Your task to perform on an android device: What time is it in Sydney? Image 0: 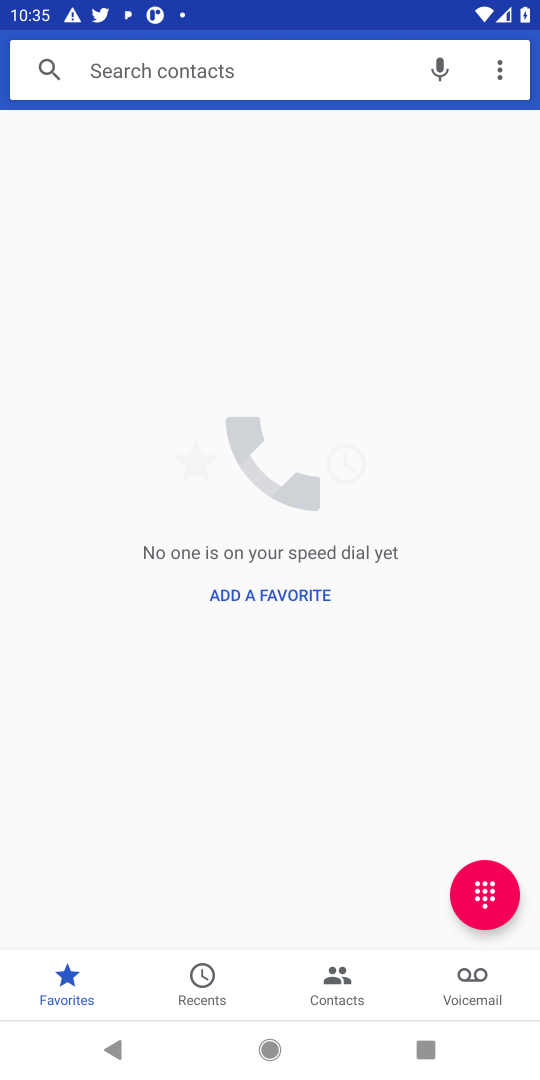
Step 0: press home button
Your task to perform on an android device: What time is it in Sydney? Image 1: 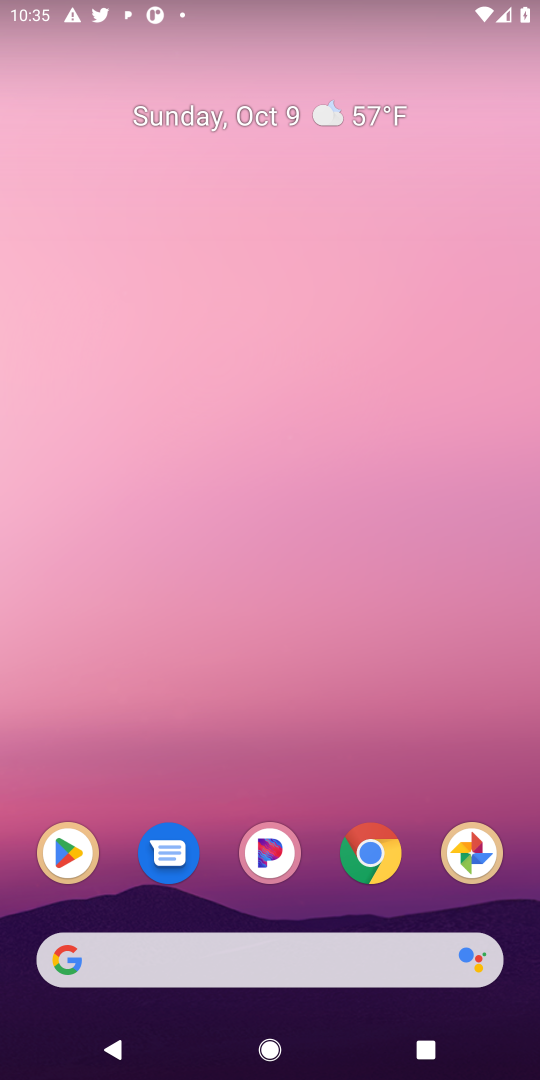
Step 1: click (370, 861)
Your task to perform on an android device: What time is it in Sydney? Image 2: 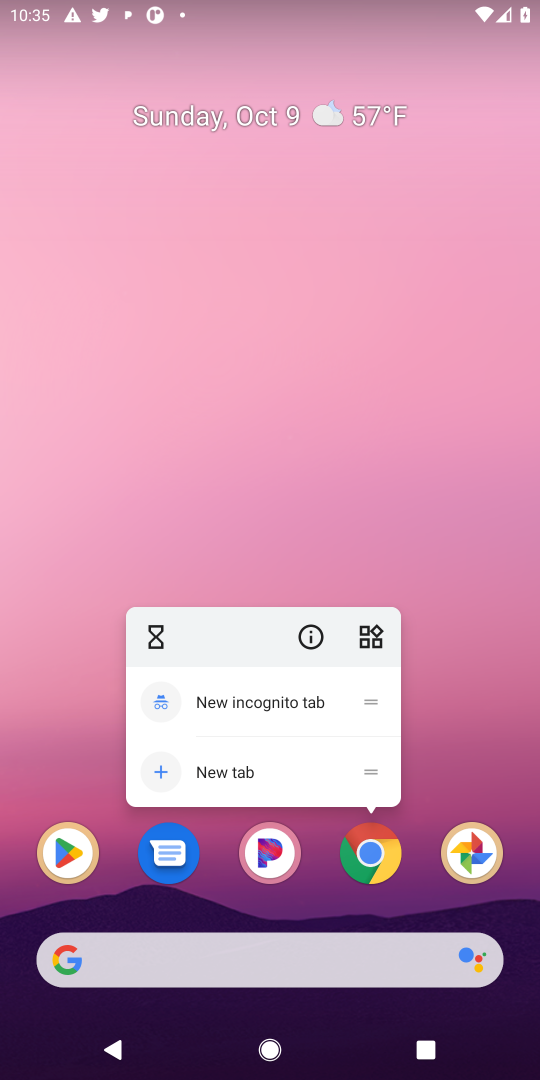
Step 2: click (370, 861)
Your task to perform on an android device: What time is it in Sydney? Image 3: 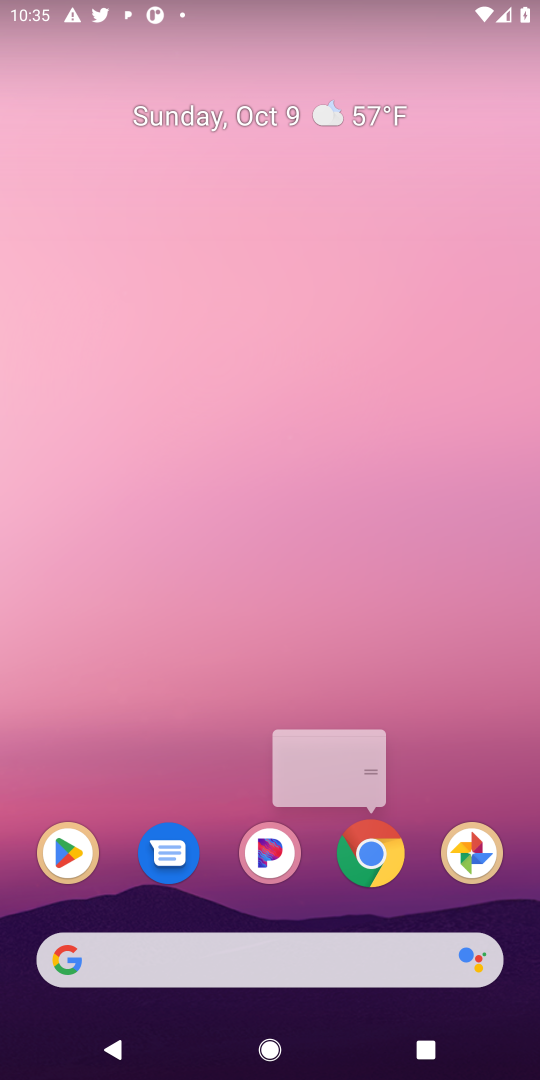
Step 3: click (352, 979)
Your task to perform on an android device: What time is it in Sydney? Image 4: 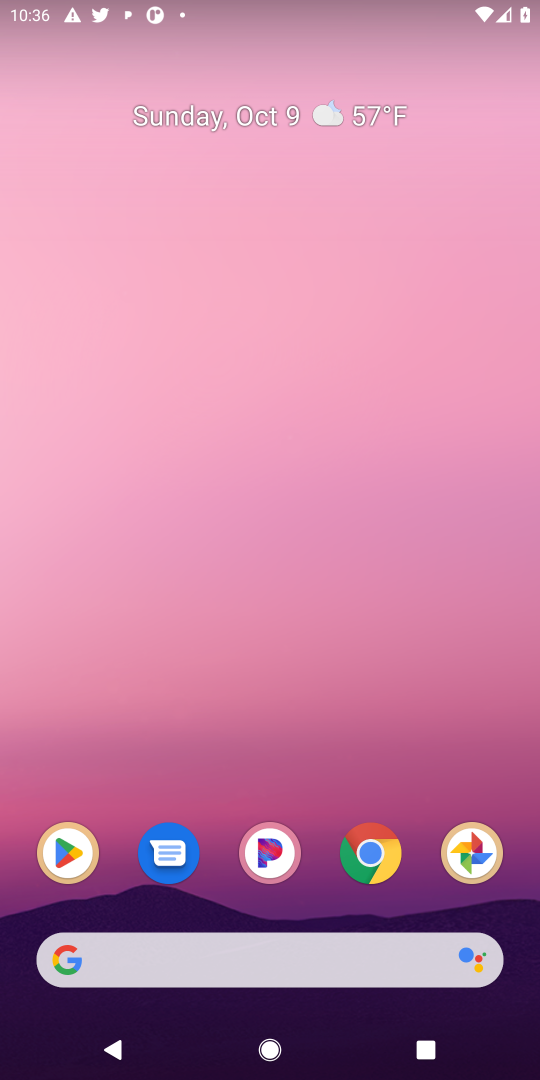
Step 4: click (268, 942)
Your task to perform on an android device: What time is it in Sydney? Image 5: 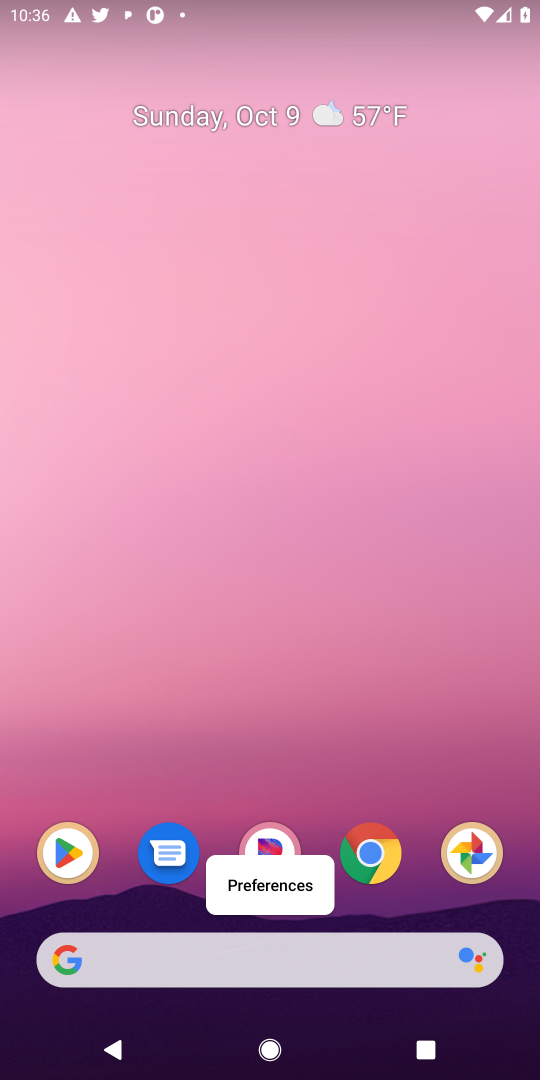
Step 5: click (221, 960)
Your task to perform on an android device: What time is it in Sydney? Image 6: 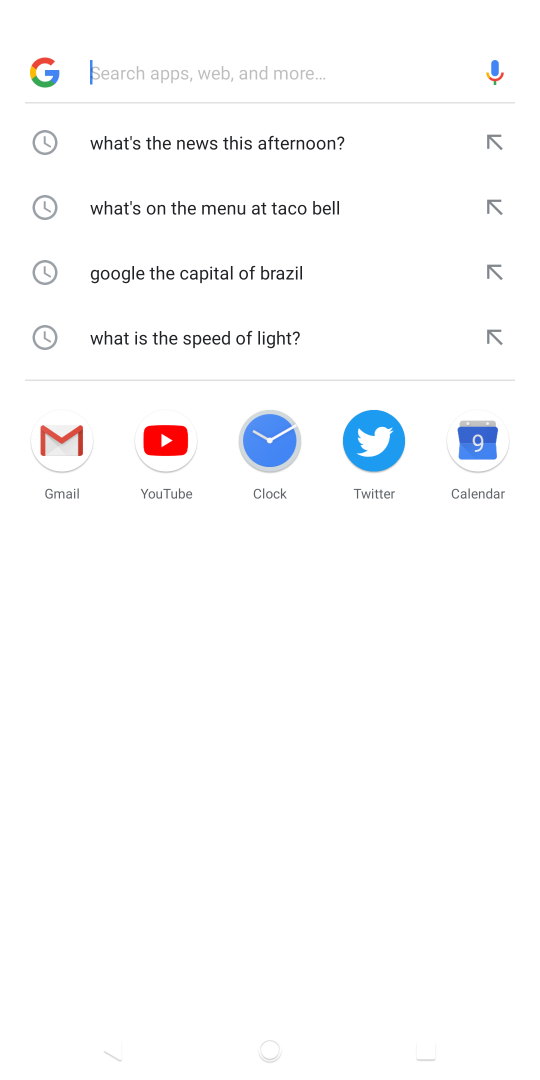
Step 6: click (221, 959)
Your task to perform on an android device: What time is it in Sydney? Image 7: 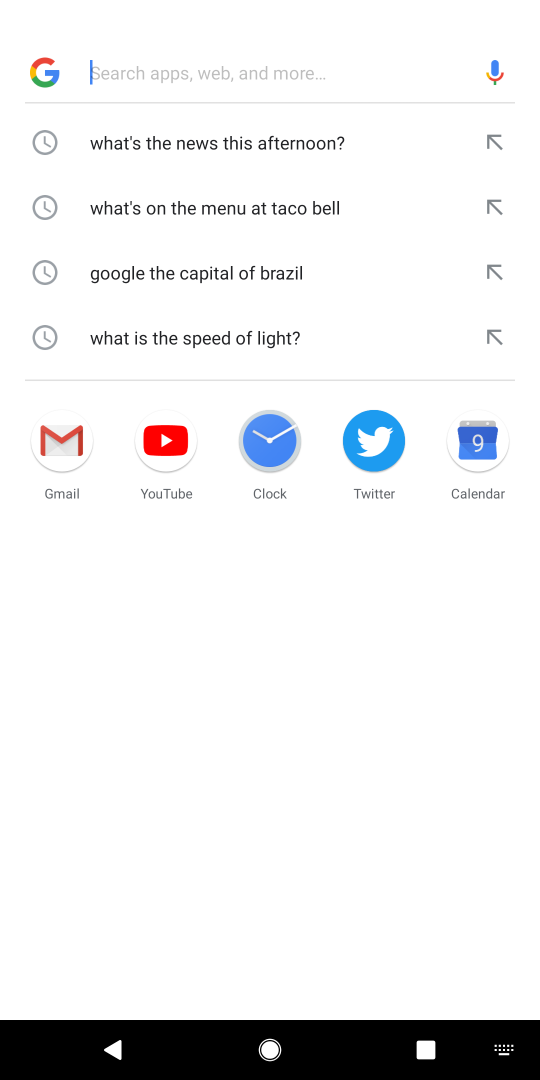
Step 7: type "what time is it in sydney?"
Your task to perform on an android device: What time is it in Sydney? Image 8: 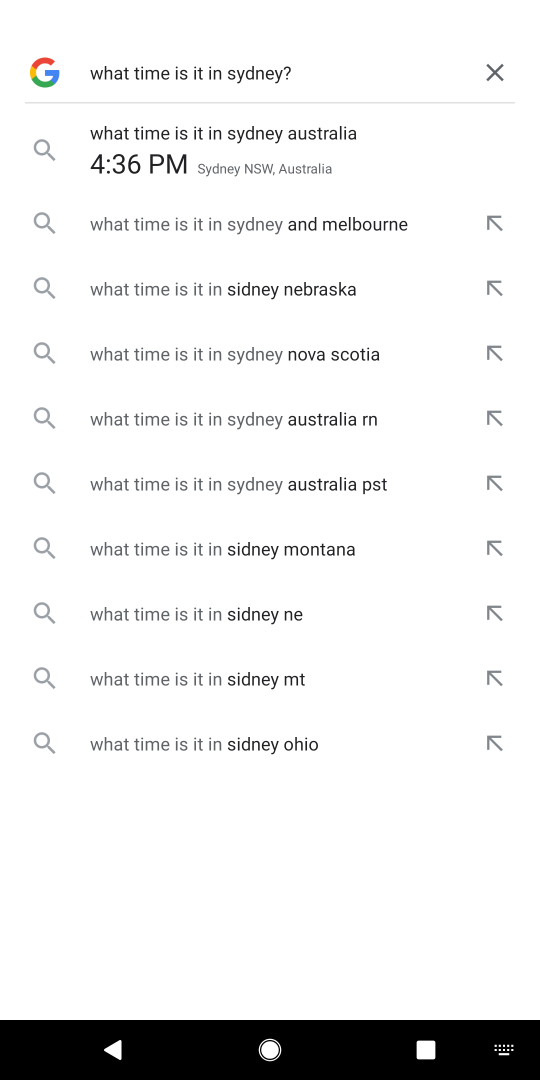
Step 8: type ""
Your task to perform on an android device: What time is it in Sydney? Image 9: 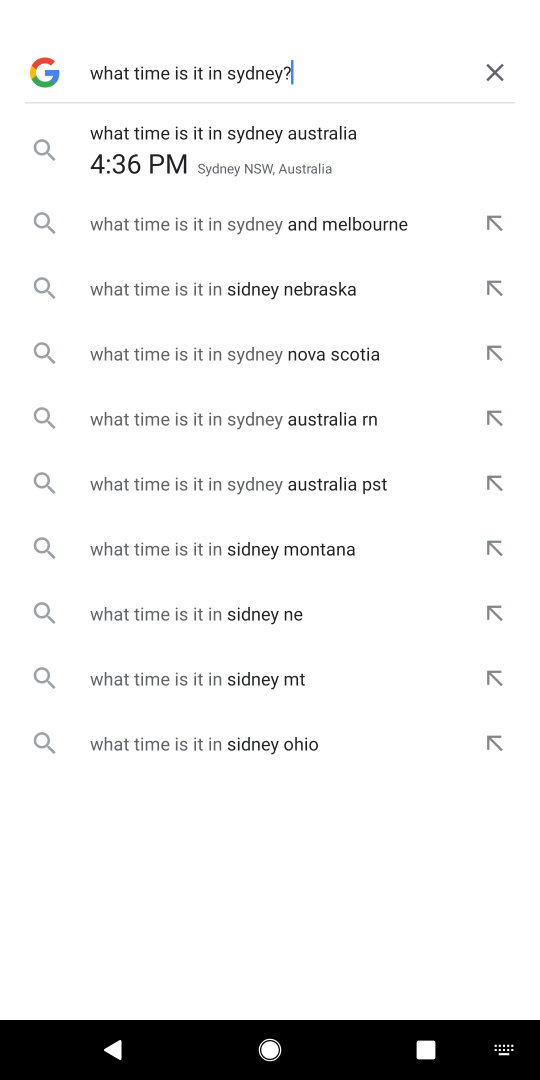
Step 9: click (354, 122)
Your task to perform on an android device: What time is it in Sydney? Image 10: 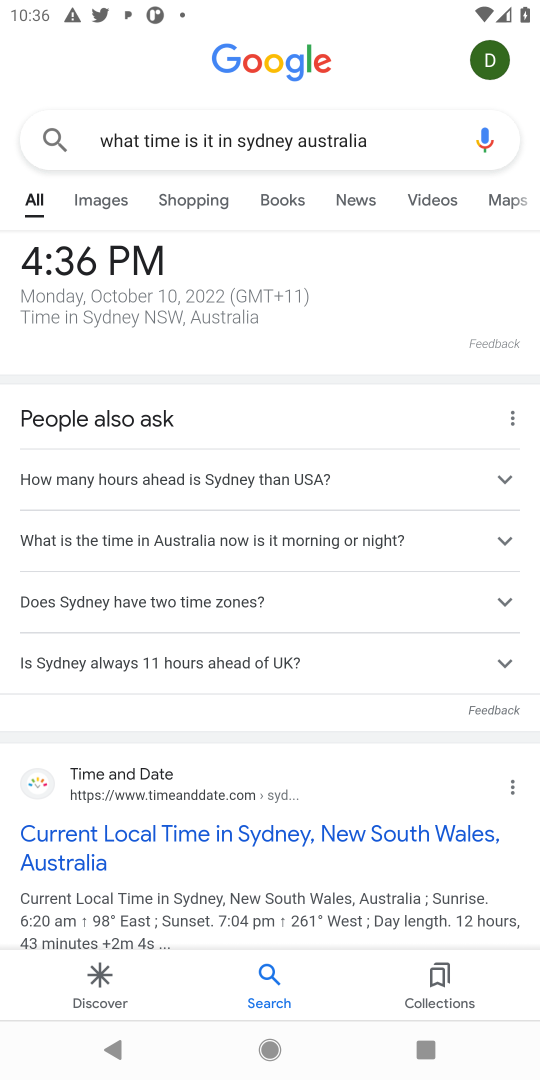
Step 10: drag from (339, 914) to (305, 215)
Your task to perform on an android device: What time is it in Sydney? Image 11: 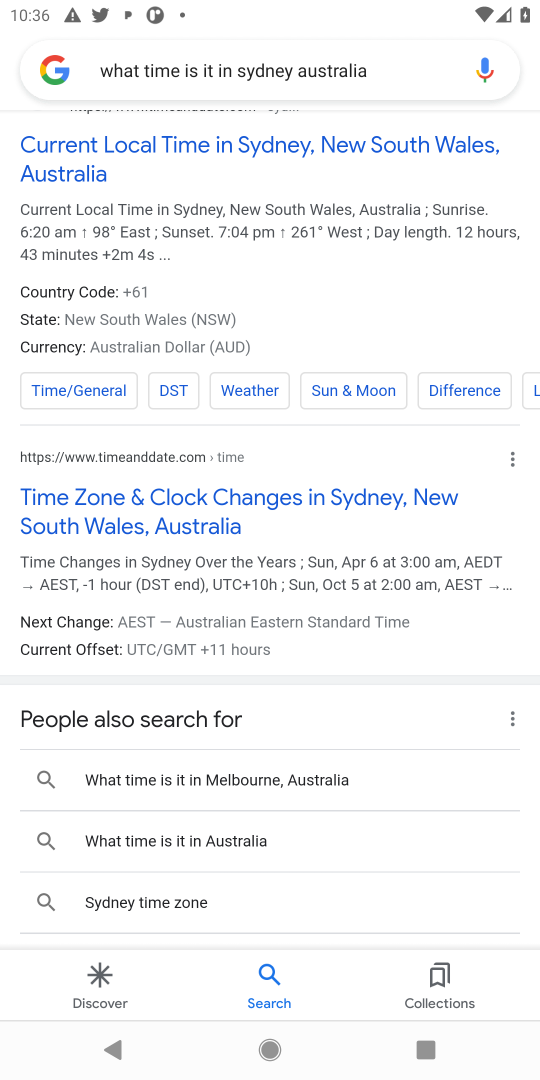
Step 11: drag from (368, 784) to (388, 361)
Your task to perform on an android device: What time is it in Sydney? Image 12: 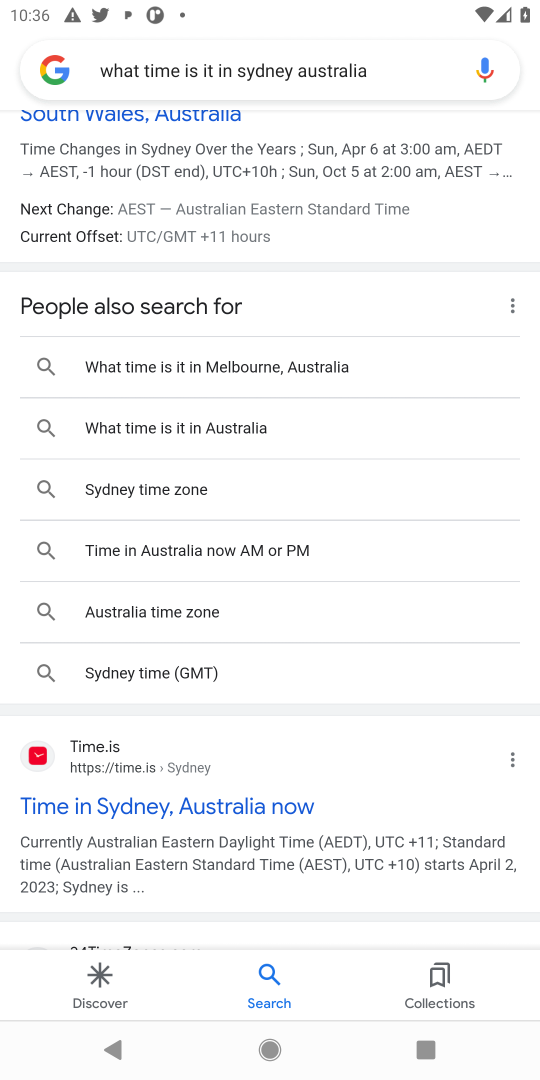
Step 12: drag from (303, 200) to (341, 662)
Your task to perform on an android device: What time is it in Sydney? Image 13: 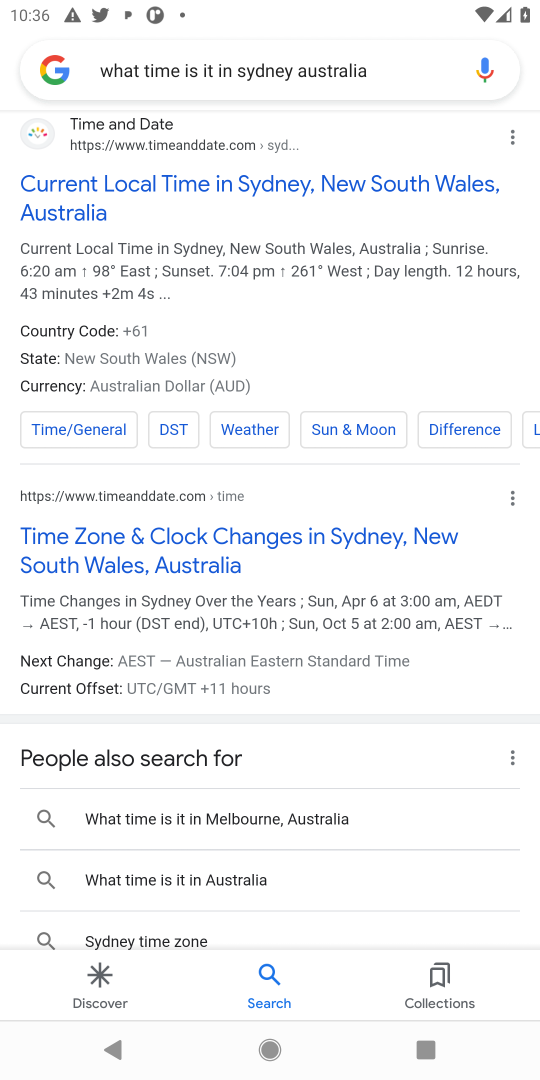
Step 13: click (312, 168)
Your task to perform on an android device: What time is it in Sydney? Image 14: 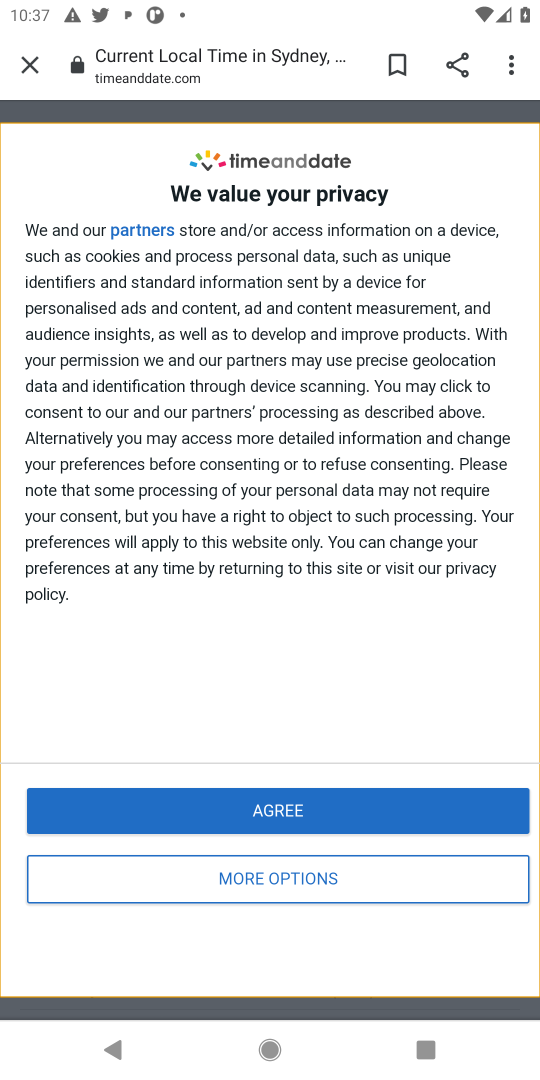
Step 14: click (375, 829)
Your task to perform on an android device: What time is it in Sydney? Image 15: 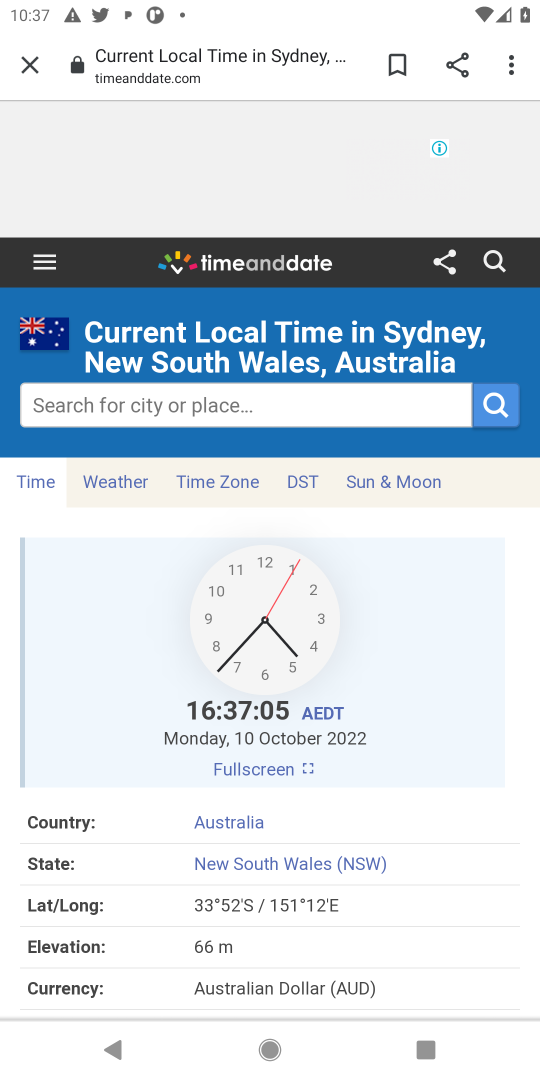
Step 15: drag from (415, 901) to (362, 250)
Your task to perform on an android device: What time is it in Sydney? Image 16: 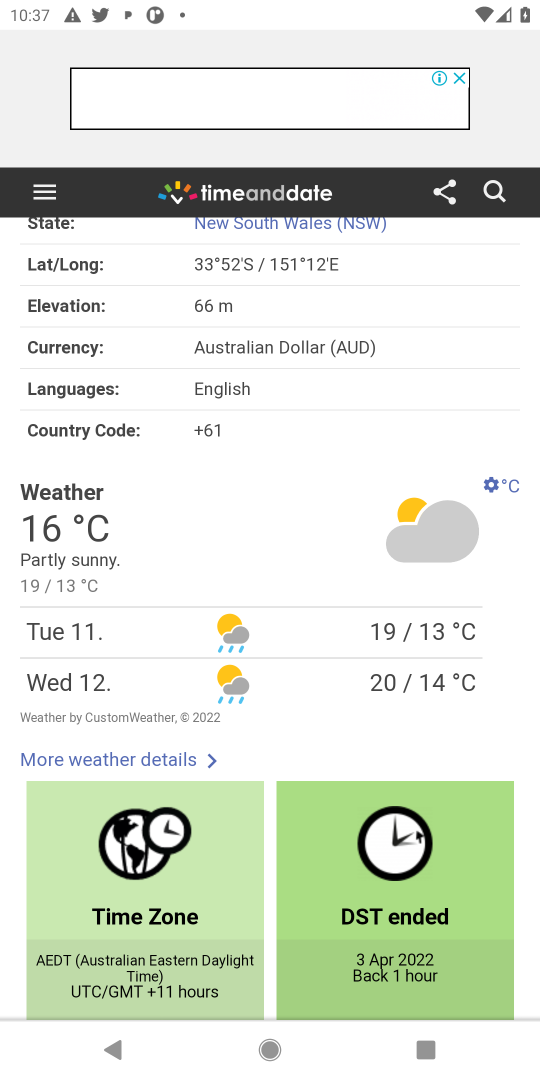
Step 16: drag from (393, 777) to (360, 139)
Your task to perform on an android device: What time is it in Sydney? Image 17: 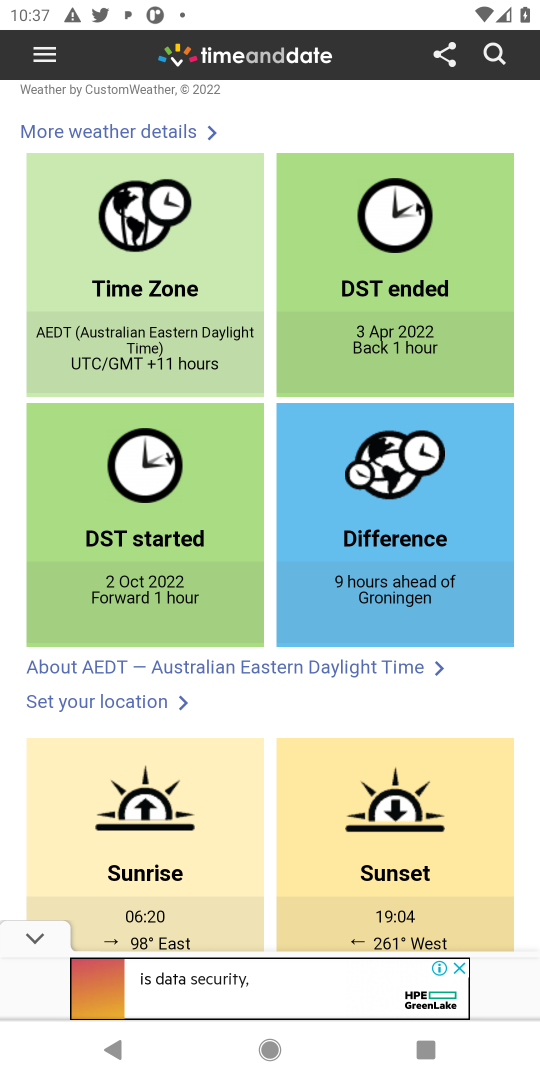
Step 17: drag from (458, 758) to (416, 39)
Your task to perform on an android device: What time is it in Sydney? Image 18: 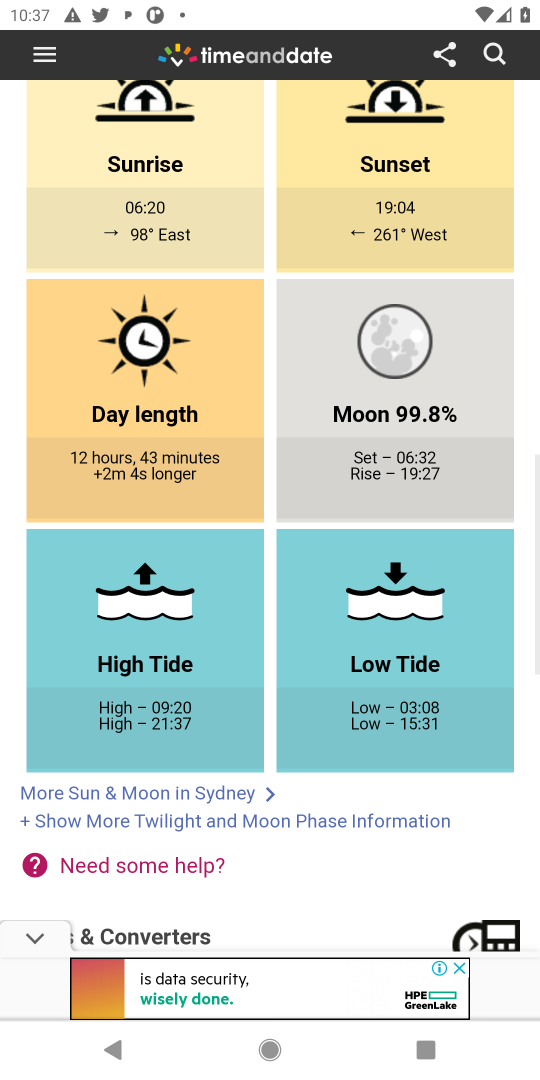
Step 18: drag from (378, 722) to (414, 67)
Your task to perform on an android device: What time is it in Sydney? Image 19: 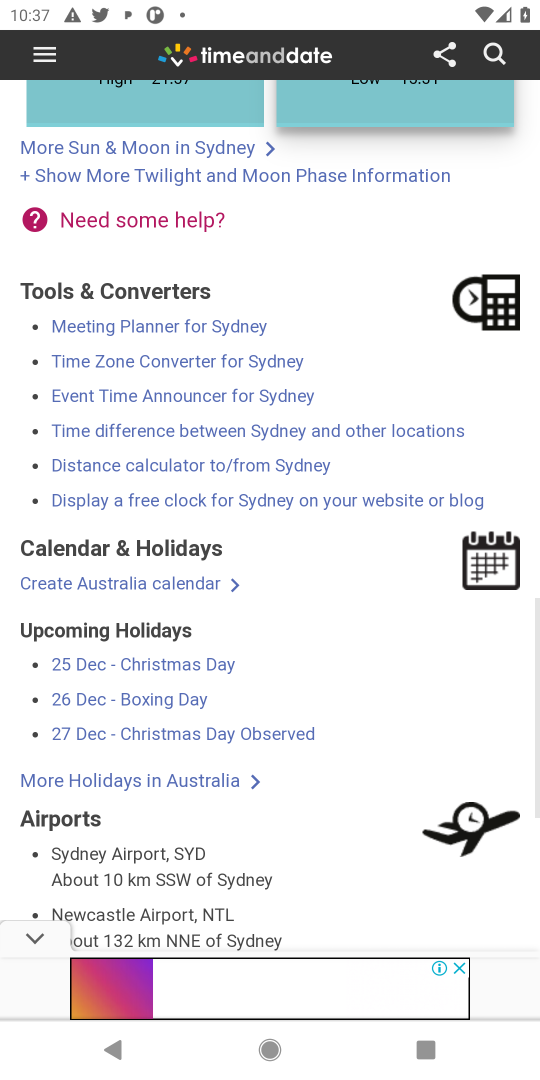
Step 19: drag from (416, 610) to (384, 109)
Your task to perform on an android device: What time is it in Sydney? Image 20: 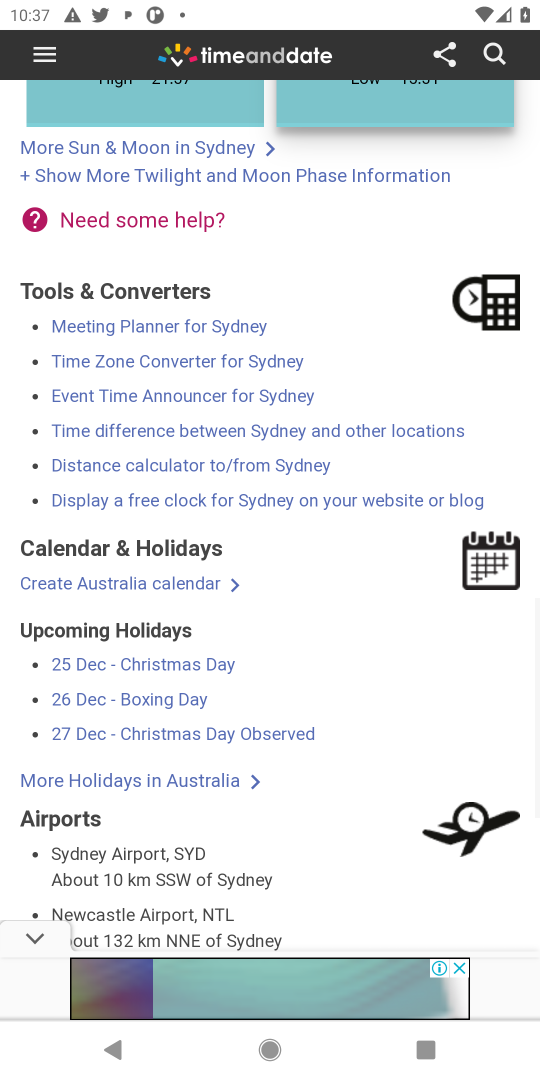
Step 20: drag from (367, 802) to (387, 229)
Your task to perform on an android device: What time is it in Sydney? Image 21: 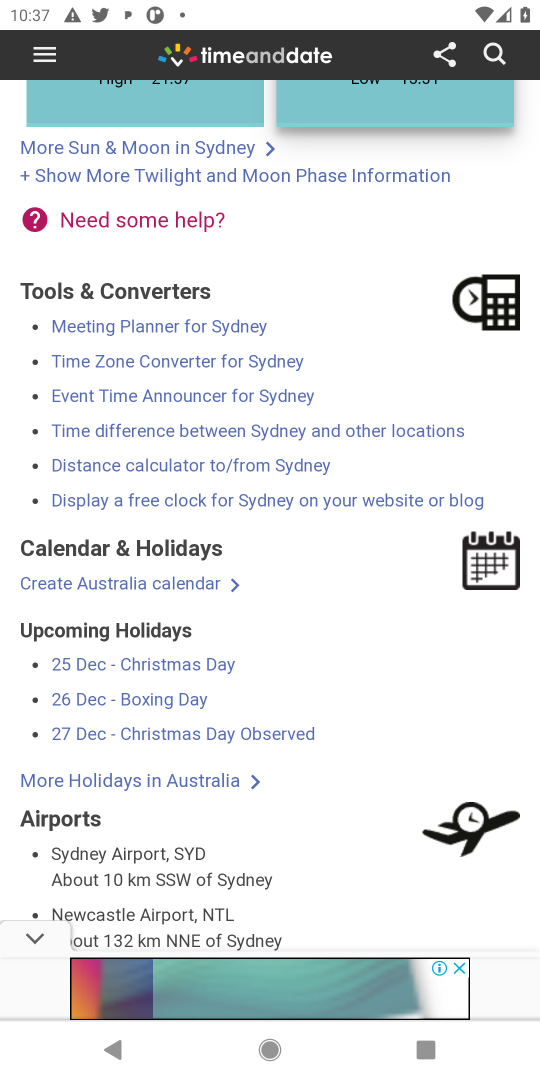
Step 21: drag from (404, 750) to (425, 180)
Your task to perform on an android device: What time is it in Sydney? Image 22: 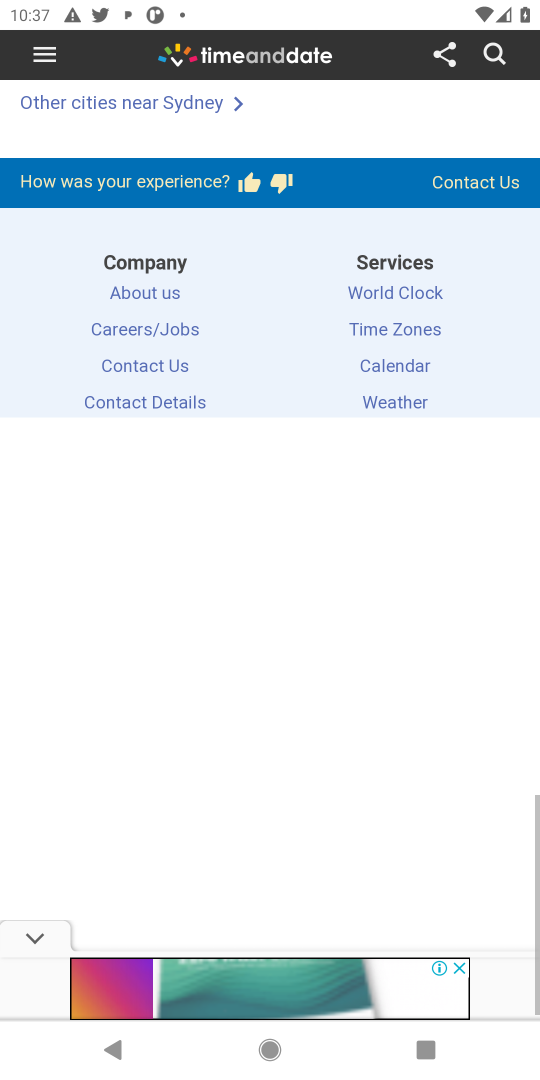
Step 22: drag from (416, 683) to (396, 379)
Your task to perform on an android device: What time is it in Sydney? Image 23: 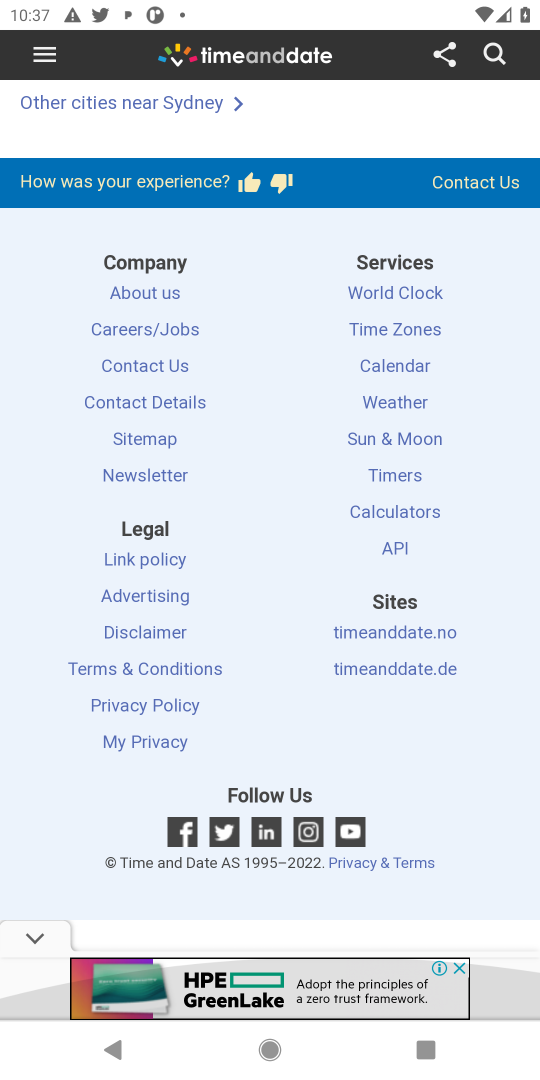
Step 23: drag from (406, 756) to (416, 161)
Your task to perform on an android device: What time is it in Sydney? Image 24: 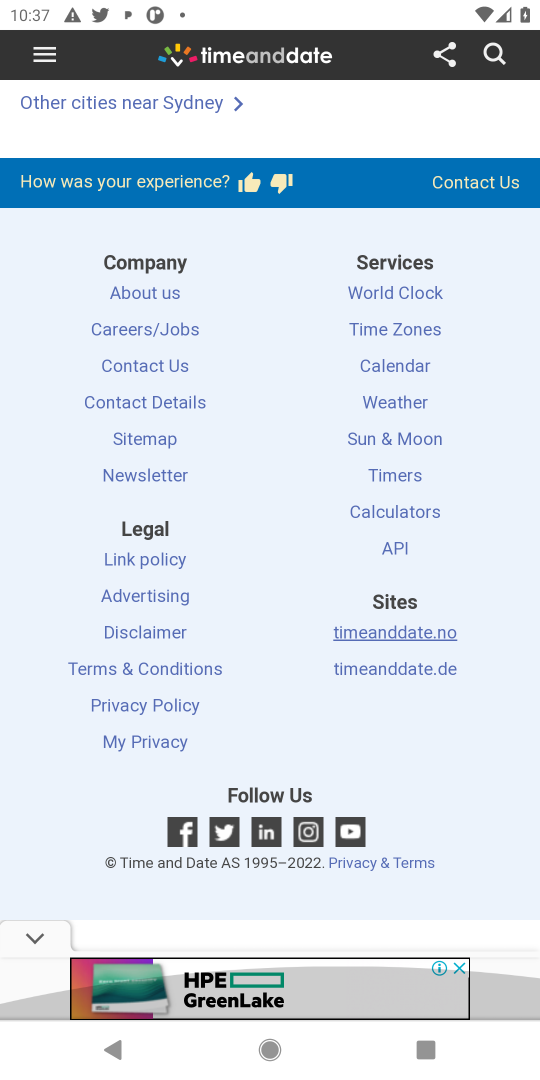
Step 24: drag from (446, 734) to (459, 325)
Your task to perform on an android device: What time is it in Sydney? Image 25: 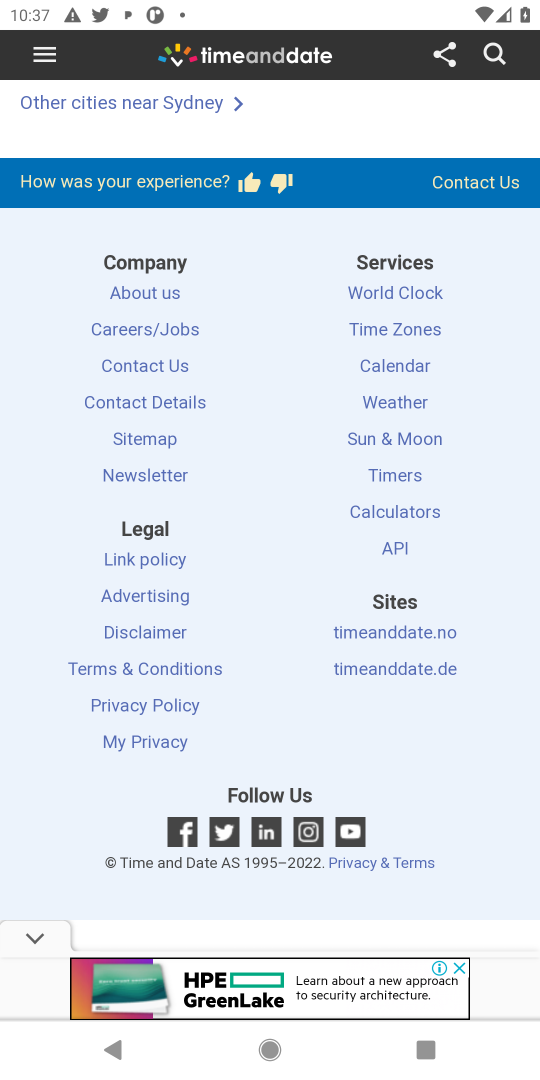
Step 25: press back button
Your task to perform on an android device: What time is it in Sydney? Image 26: 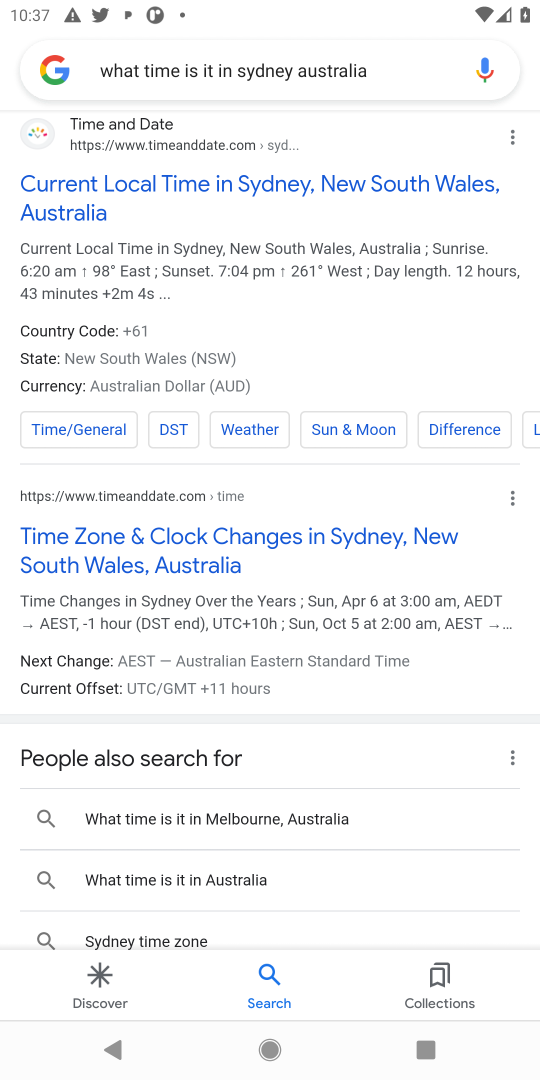
Step 26: click (240, 552)
Your task to perform on an android device: What time is it in Sydney? Image 27: 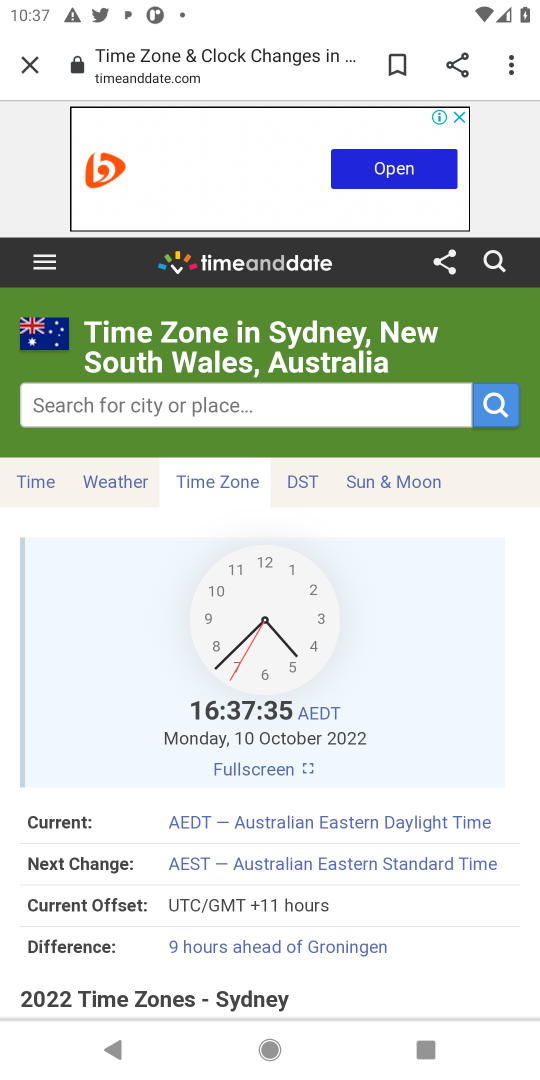
Step 27: task complete